Your task to perform on an android device: find photos in the google photos app Image 0: 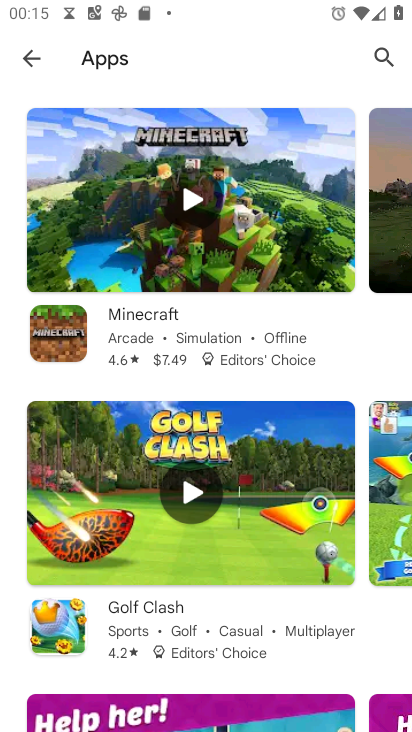
Step 0: press home button
Your task to perform on an android device: find photos in the google photos app Image 1: 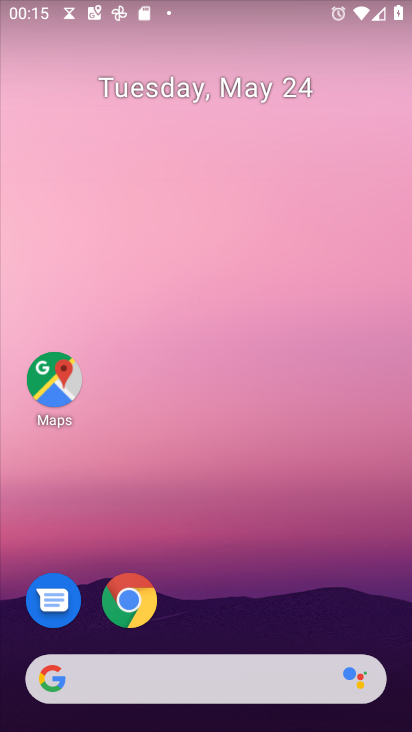
Step 1: drag from (217, 727) to (217, 119)
Your task to perform on an android device: find photos in the google photos app Image 2: 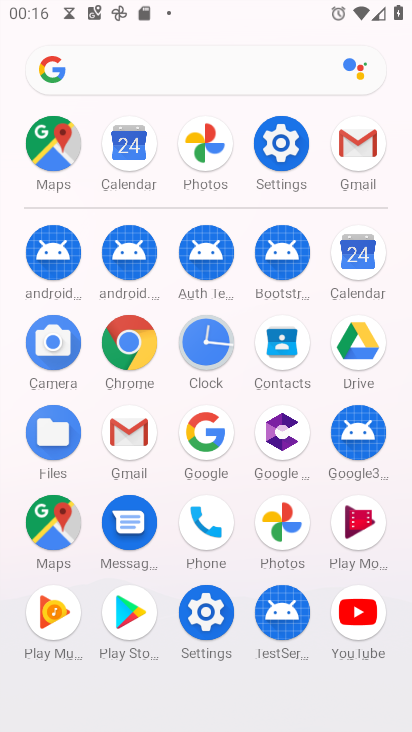
Step 2: click (283, 523)
Your task to perform on an android device: find photos in the google photos app Image 3: 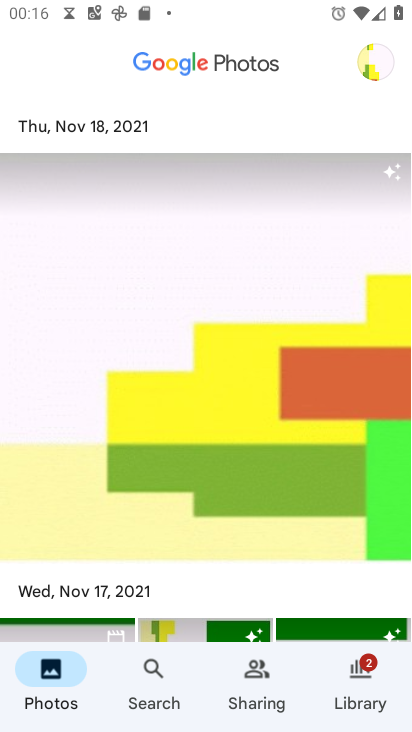
Step 3: task complete